Your task to perform on an android device: Open Amazon Image 0: 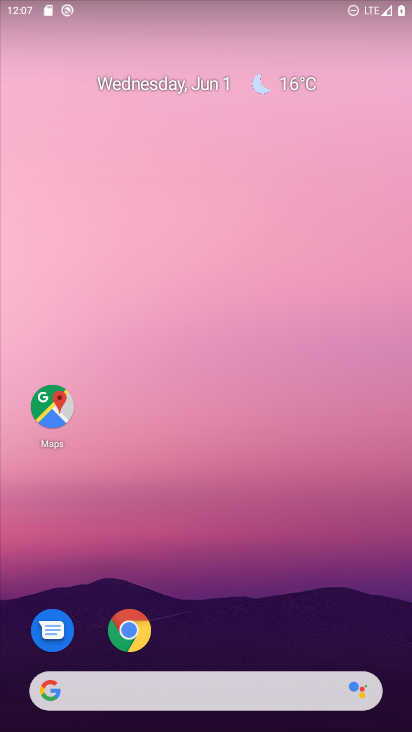
Step 0: click (127, 622)
Your task to perform on an android device: Open Amazon Image 1: 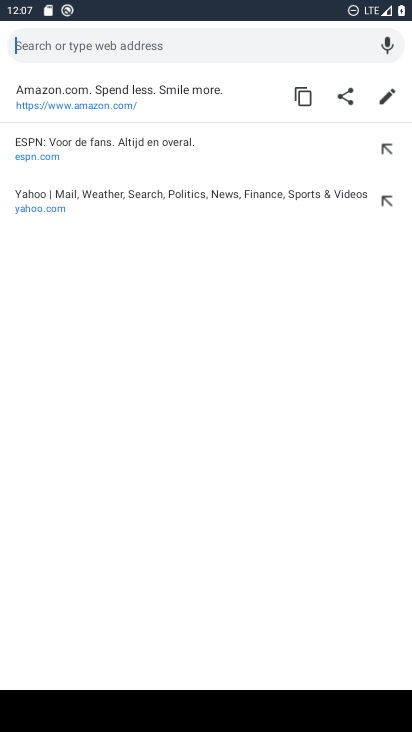
Step 1: click (120, 96)
Your task to perform on an android device: Open Amazon Image 2: 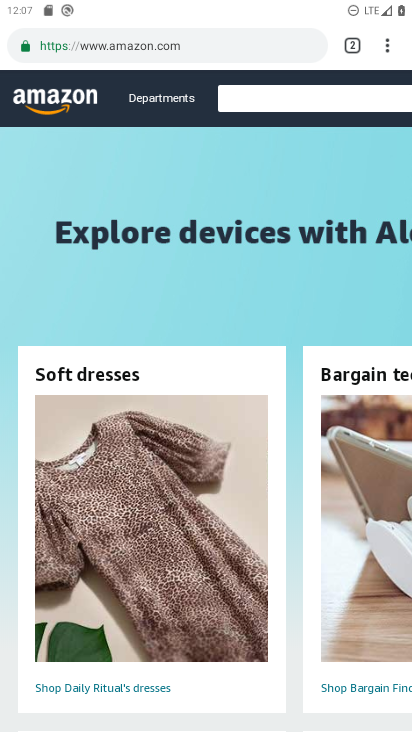
Step 2: task complete